Your task to perform on an android device: turn off improve location accuracy Image 0: 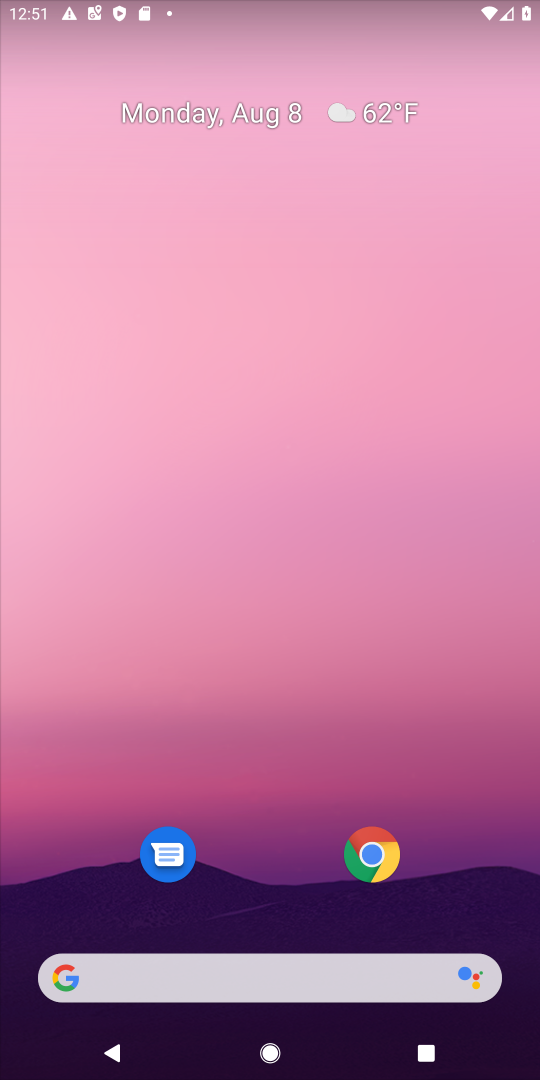
Step 0: press home button
Your task to perform on an android device: turn off improve location accuracy Image 1: 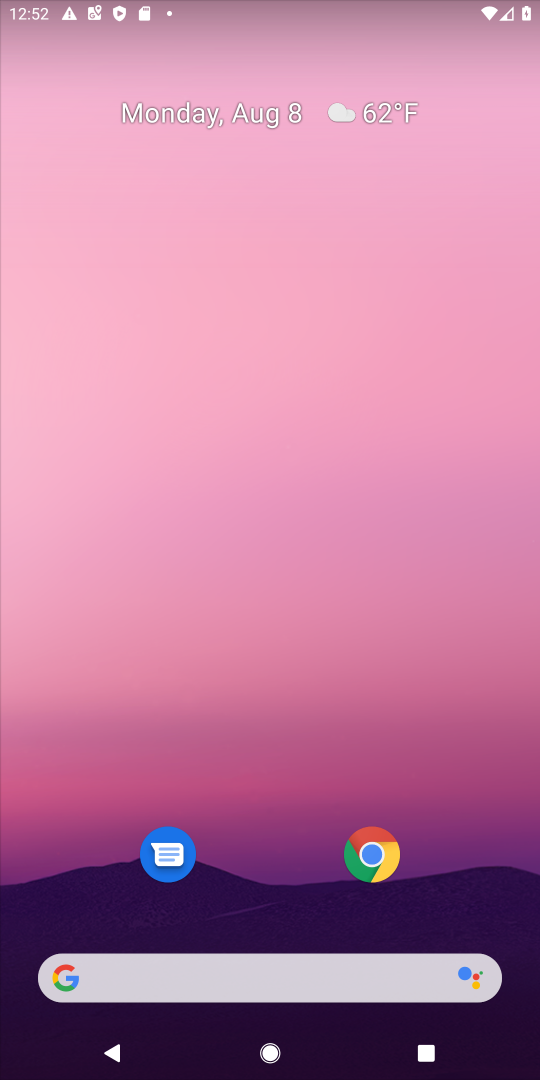
Step 1: click (383, 857)
Your task to perform on an android device: turn off improve location accuracy Image 2: 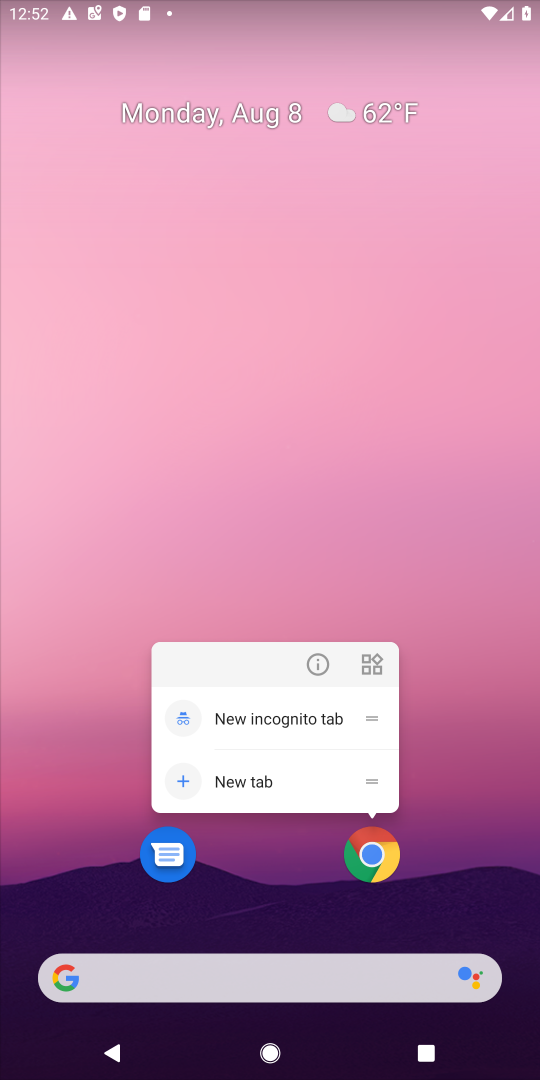
Step 2: click (394, 864)
Your task to perform on an android device: turn off improve location accuracy Image 3: 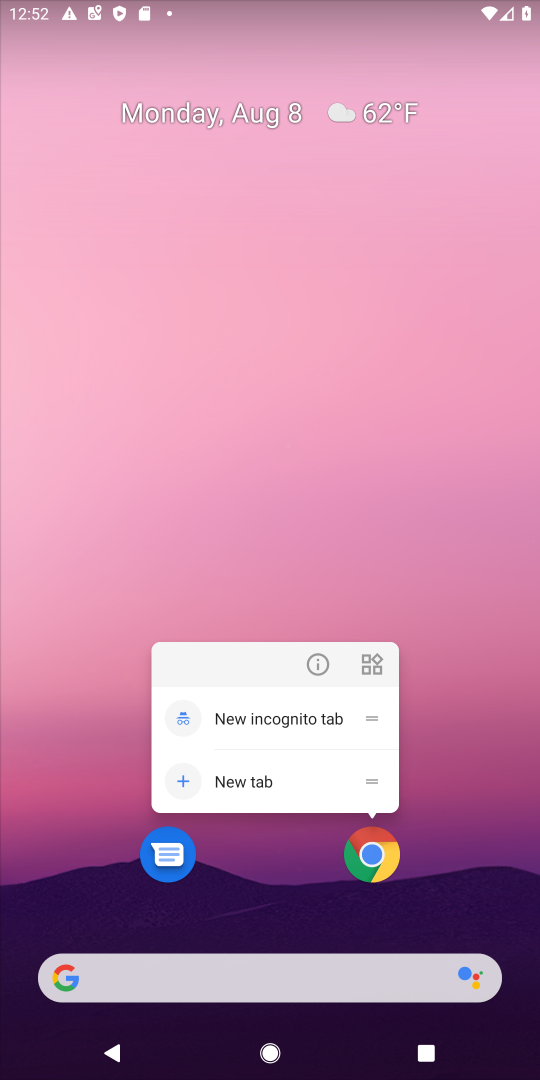
Step 3: click (384, 856)
Your task to perform on an android device: turn off improve location accuracy Image 4: 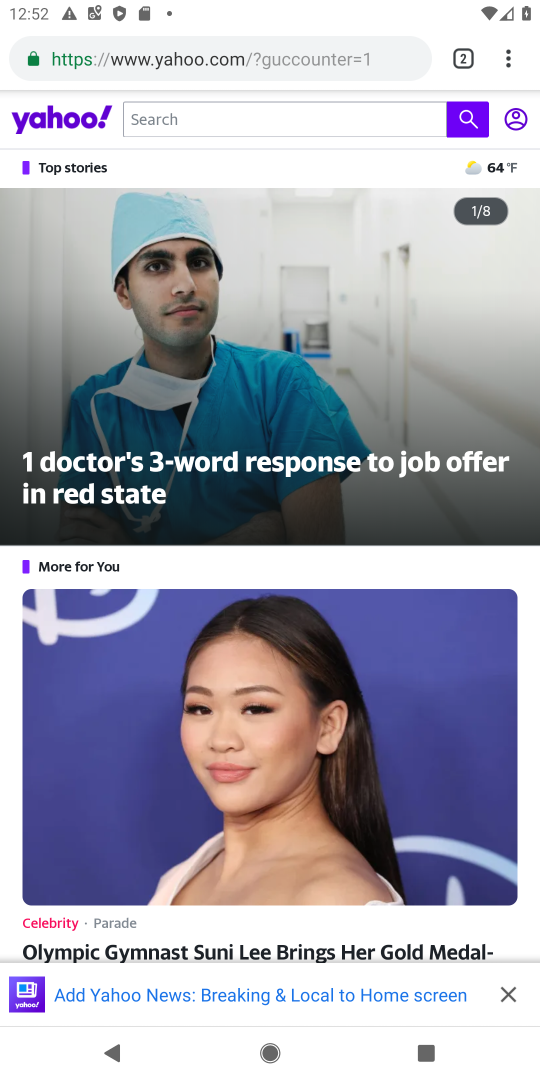
Step 4: drag from (522, 49) to (318, 301)
Your task to perform on an android device: turn off improve location accuracy Image 5: 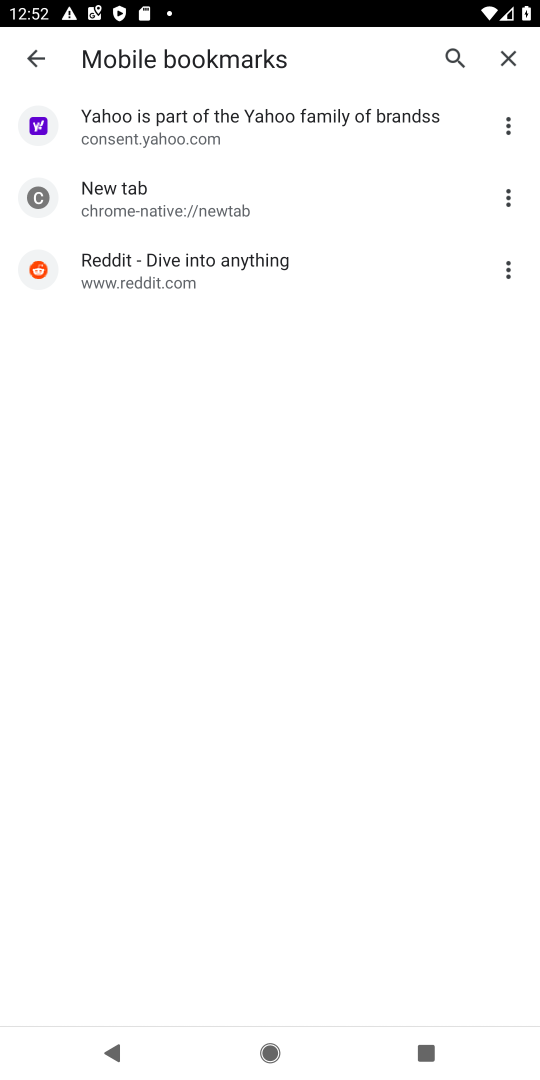
Step 5: press home button
Your task to perform on an android device: turn off improve location accuracy Image 6: 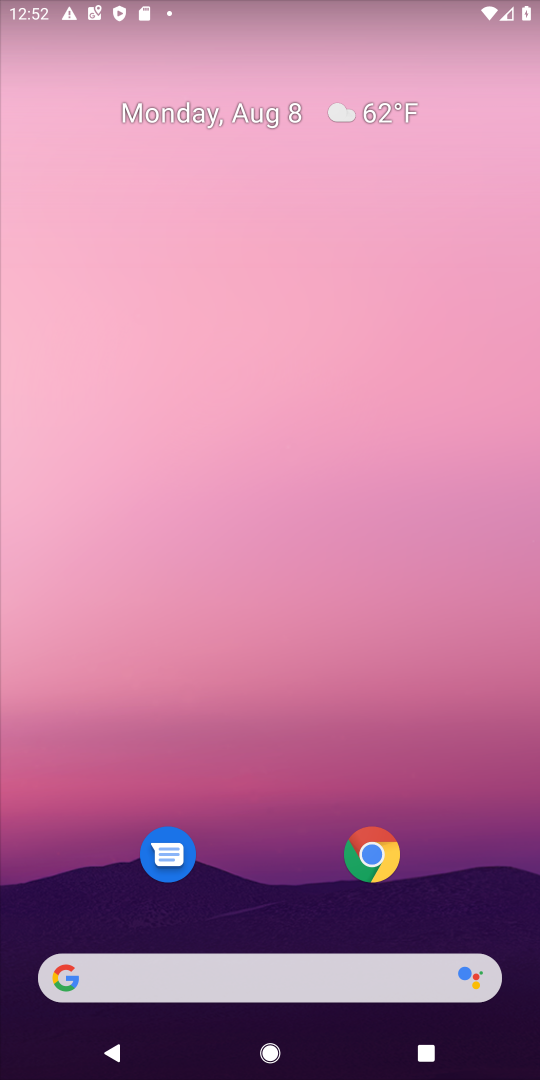
Step 6: drag from (277, 849) to (273, 111)
Your task to perform on an android device: turn off improve location accuracy Image 7: 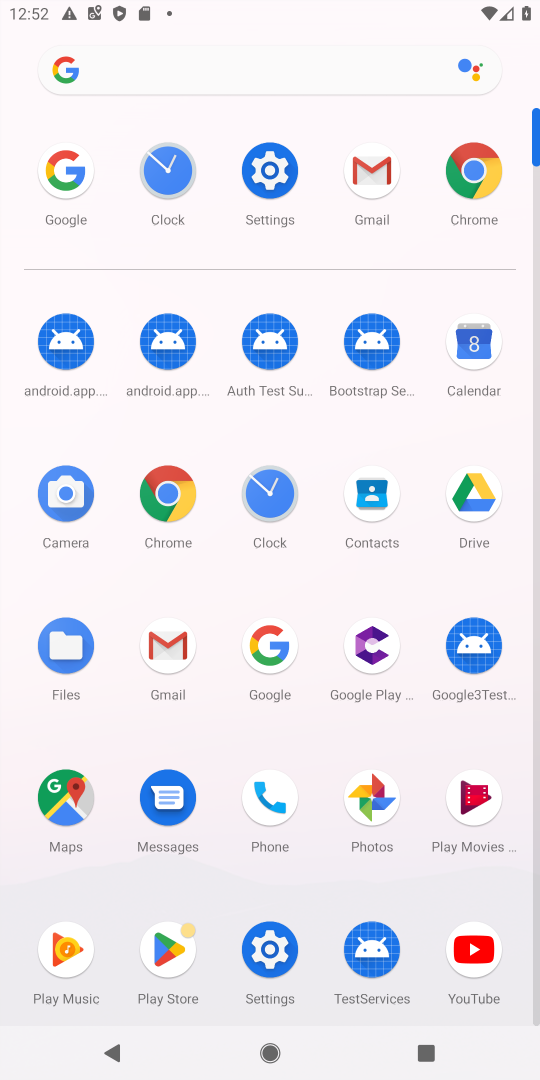
Step 7: click (270, 167)
Your task to perform on an android device: turn off improve location accuracy Image 8: 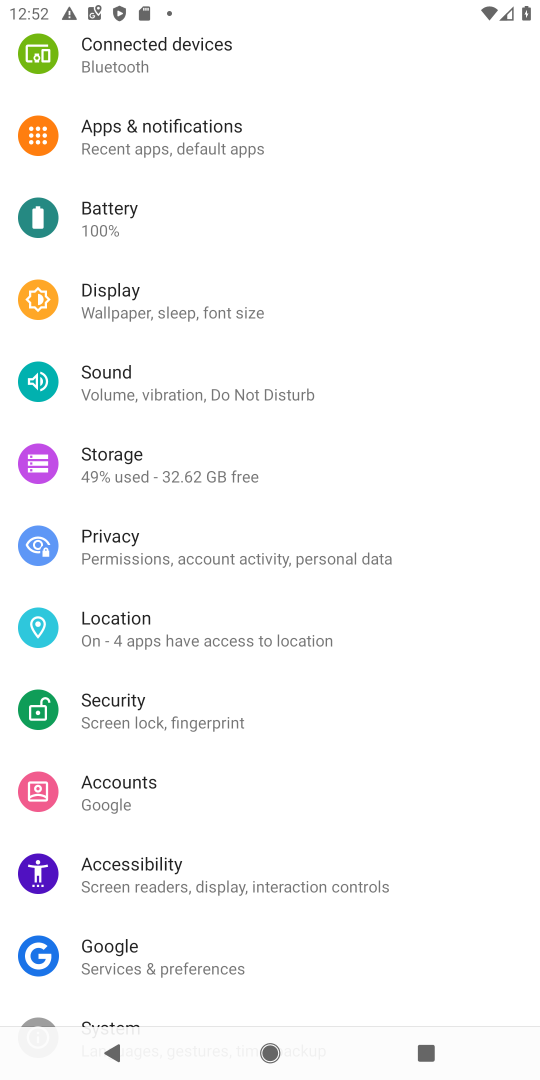
Step 8: click (142, 634)
Your task to perform on an android device: turn off improve location accuracy Image 9: 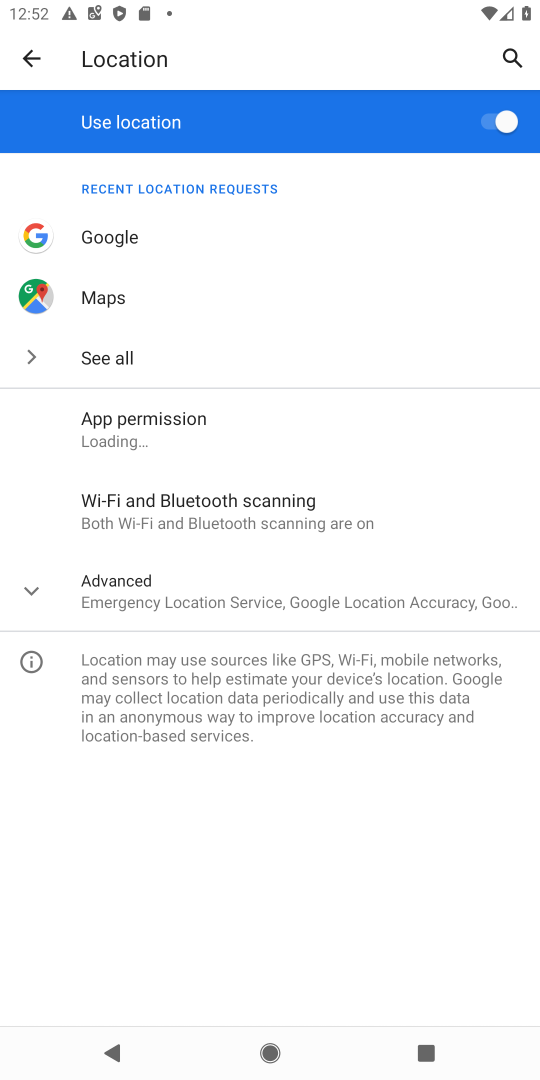
Step 9: click (40, 595)
Your task to perform on an android device: turn off improve location accuracy Image 10: 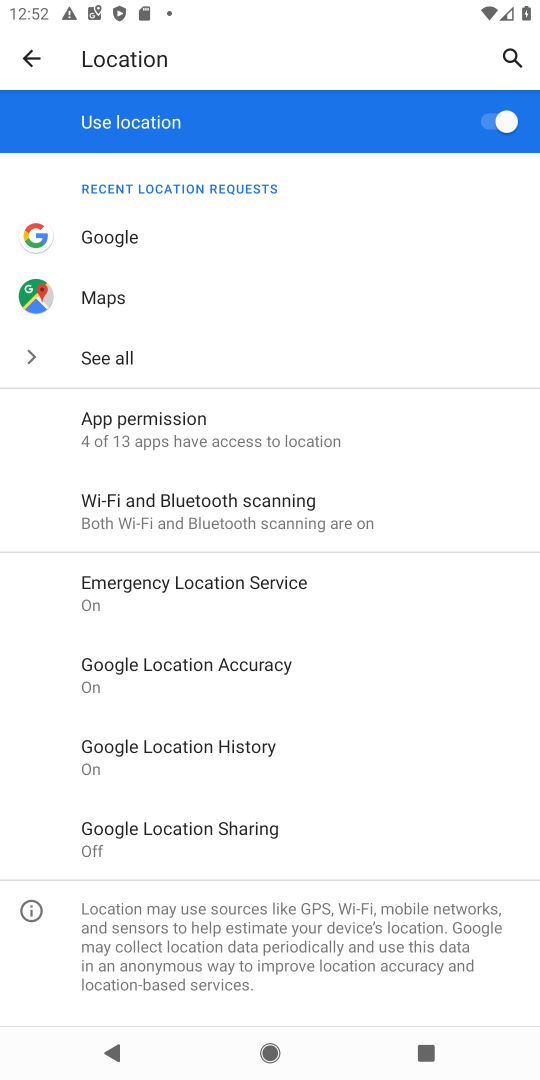
Step 10: click (205, 672)
Your task to perform on an android device: turn off improve location accuracy Image 11: 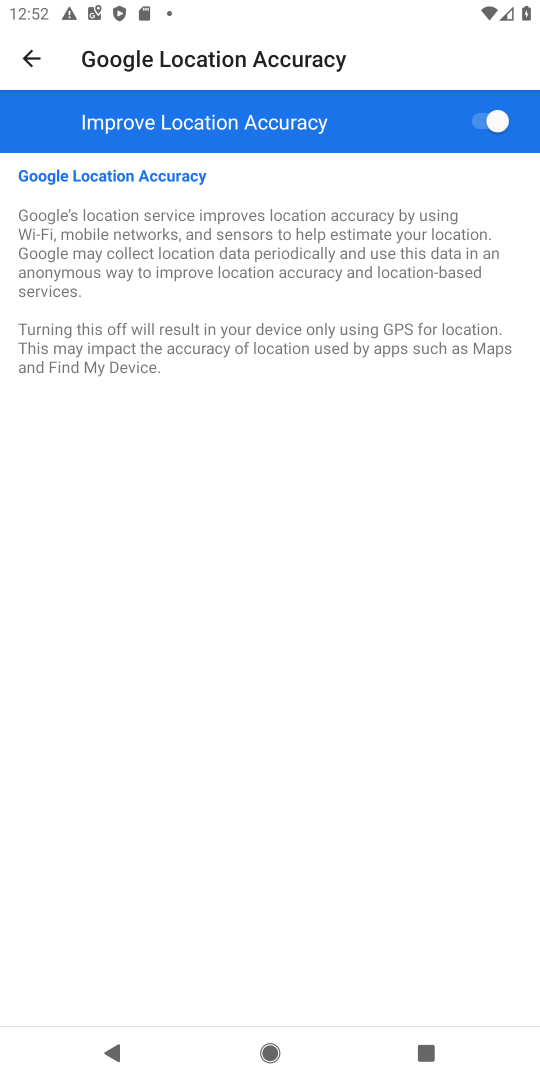
Step 11: click (514, 121)
Your task to perform on an android device: turn off improve location accuracy Image 12: 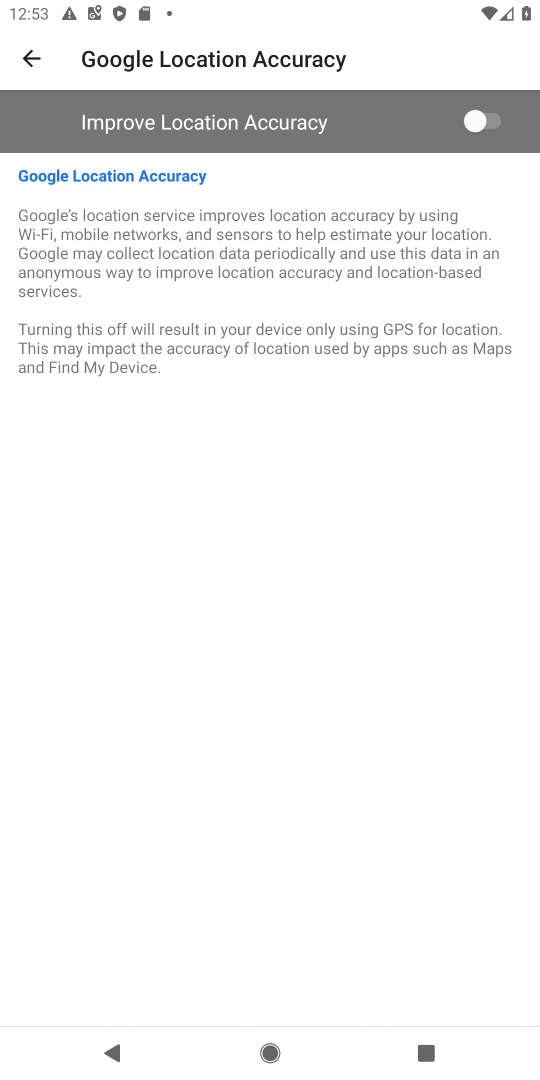
Step 12: task complete